Your task to perform on an android device: turn off improve location accuracy Image 0: 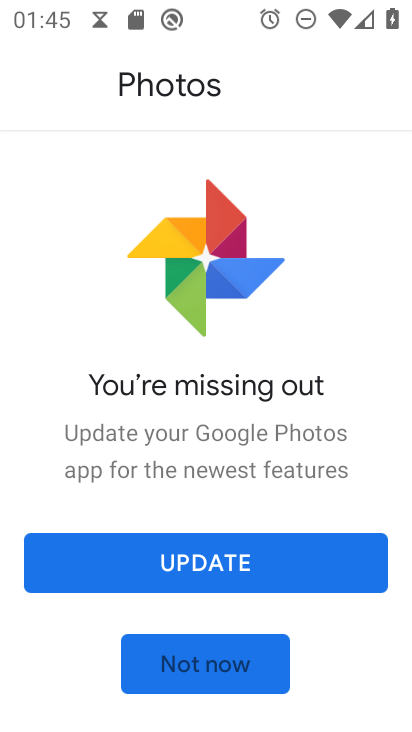
Step 0: press home button
Your task to perform on an android device: turn off improve location accuracy Image 1: 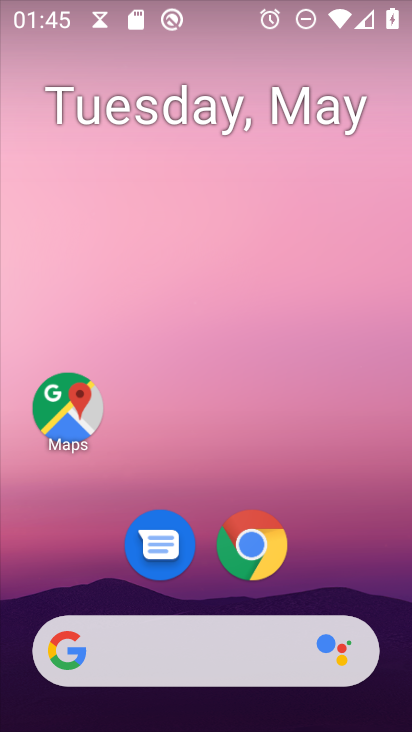
Step 1: drag from (355, 586) to (307, 76)
Your task to perform on an android device: turn off improve location accuracy Image 2: 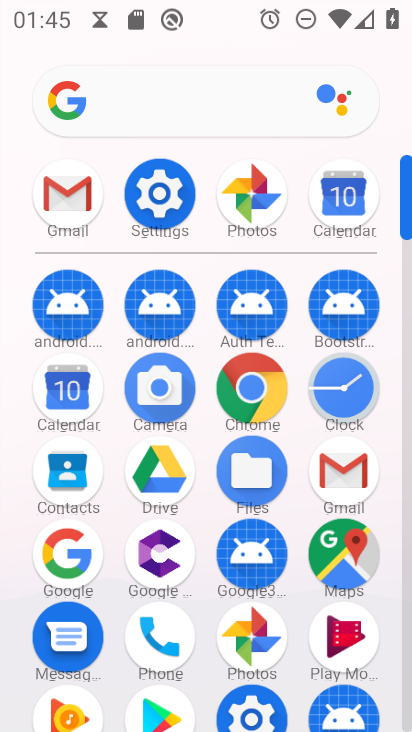
Step 2: click (164, 189)
Your task to perform on an android device: turn off improve location accuracy Image 3: 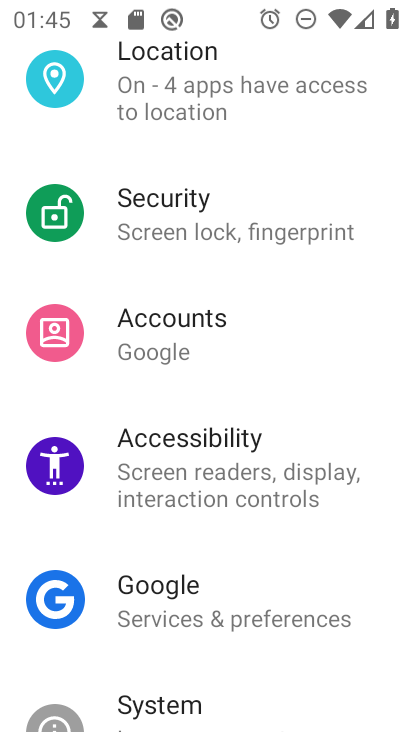
Step 3: click (221, 102)
Your task to perform on an android device: turn off improve location accuracy Image 4: 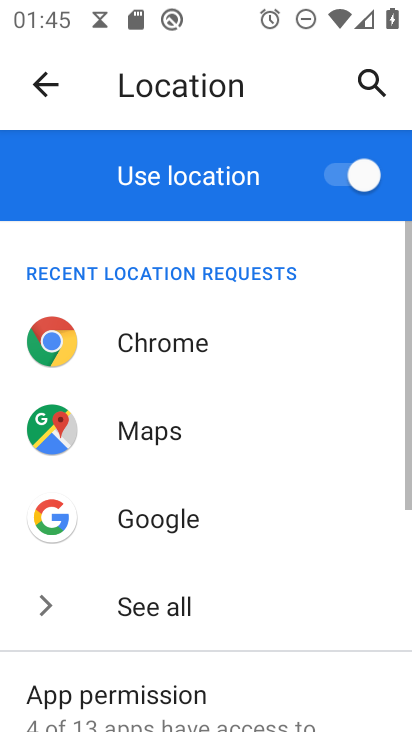
Step 4: drag from (280, 545) to (293, 367)
Your task to perform on an android device: turn off improve location accuracy Image 5: 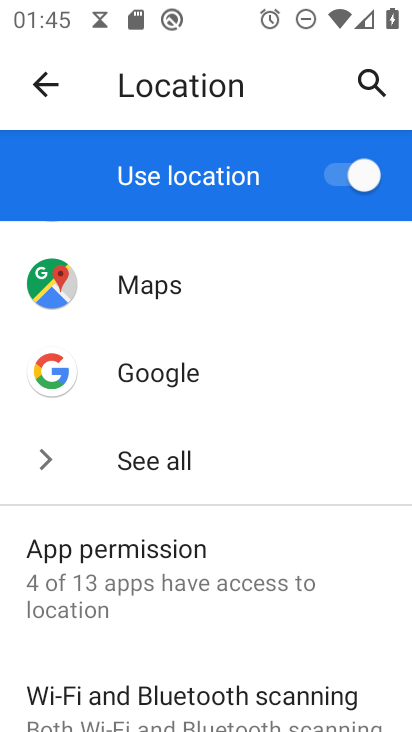
Step 5: drag from (227, 617) to (251, 442)
Your task to perform on an android device: turn off improve location accuracy Image 6: 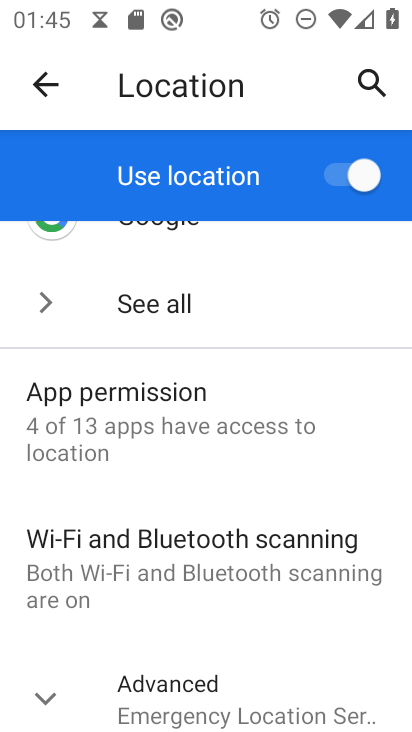
Step 6: drag from (234, 582) to (265, 409)
Your task to perform on an android device: turn off improve location accuracy Image 7: 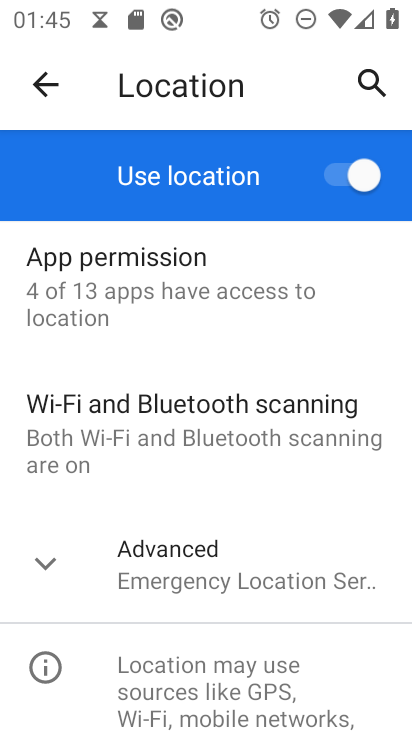
Step 7: click (262, 541)
Your task to perform on an android device: turn off improve location accuracy Image 8: 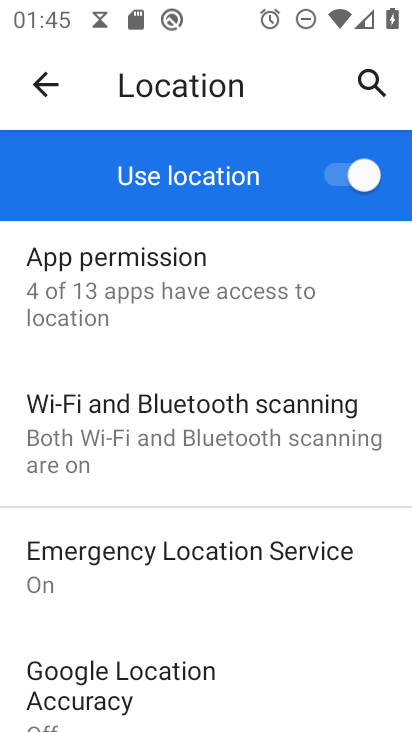
Step 8: click (223, 684)
Your task to perform on an android device: turn off improve location accuracy Image 9: 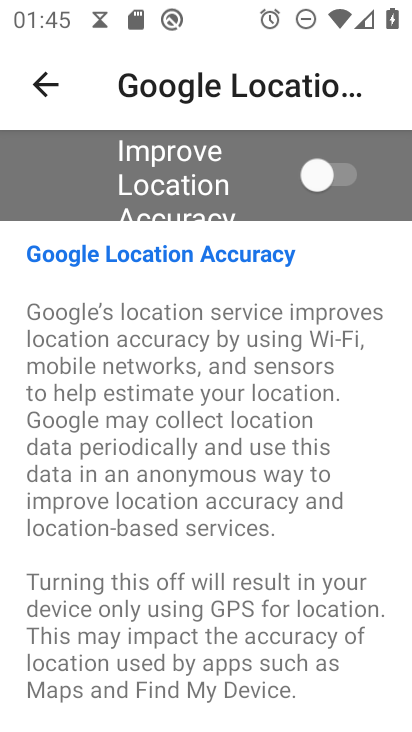
Step 9: task complete